Your task to perform on an android device: set the stopwatch Image 0: 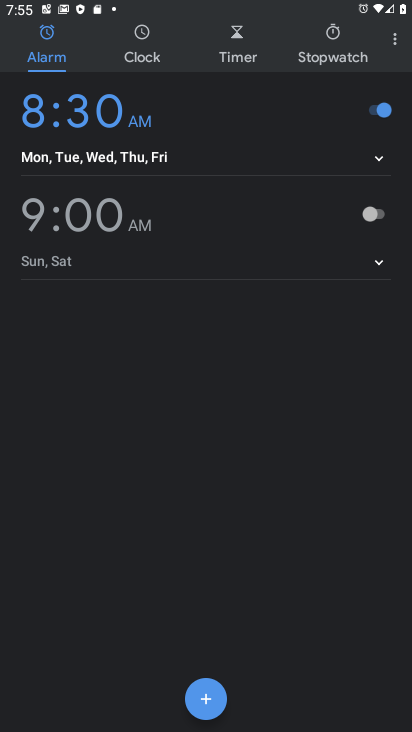
Step 0: press home button
Your task to perform on an android device: set the stopwatch Image 1: 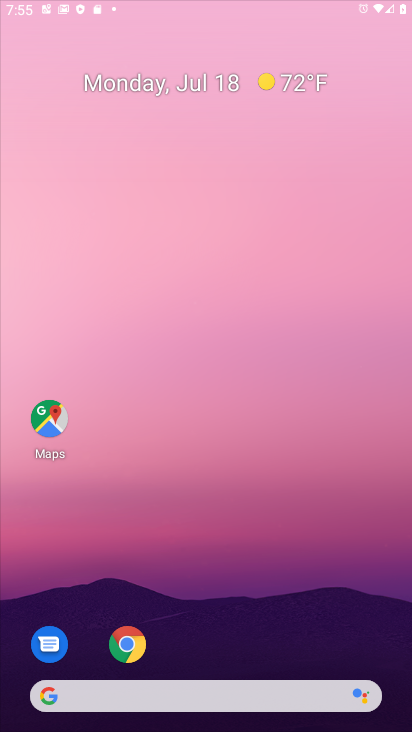
Step 1: drag from (381, 689) to (216, 35)
Your task to perform on an android device: set the stopwatch Image 2: 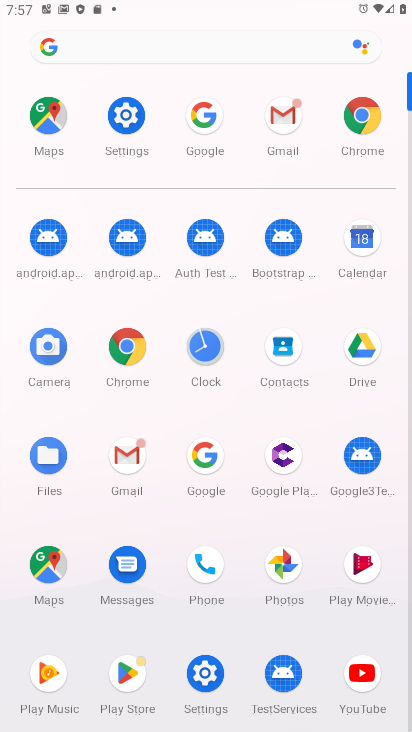
Step 2: click (197, 352)
Your task to perform on an android device: set the stopwatch Image 3: 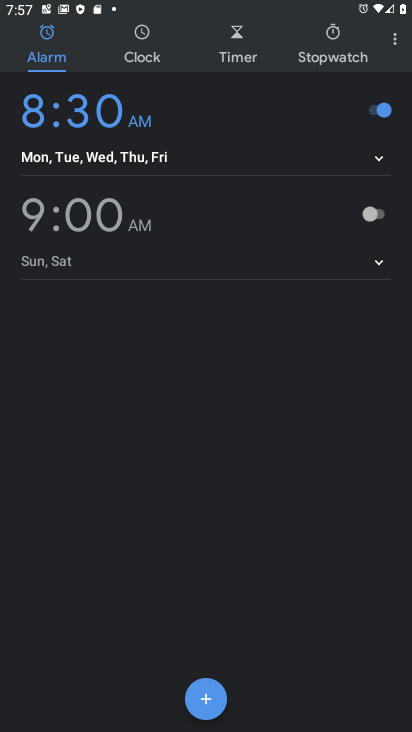
Step 3: click (339, 42)
Your task to perform on an android device: set the stopwatch Image 4: 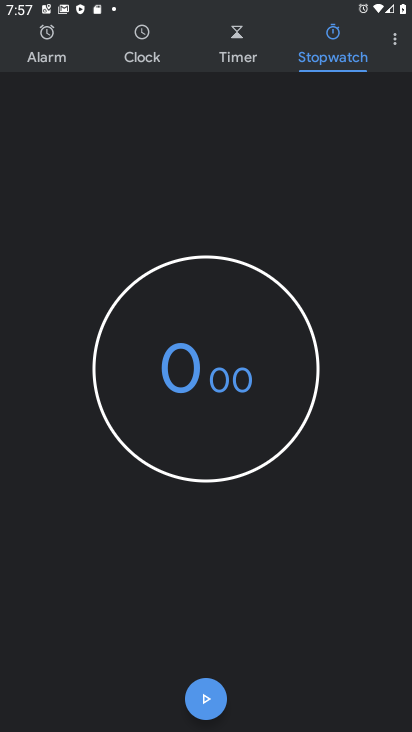
Step 4: task complete